Your task to perform on an android device: Open the web browser Image 0: 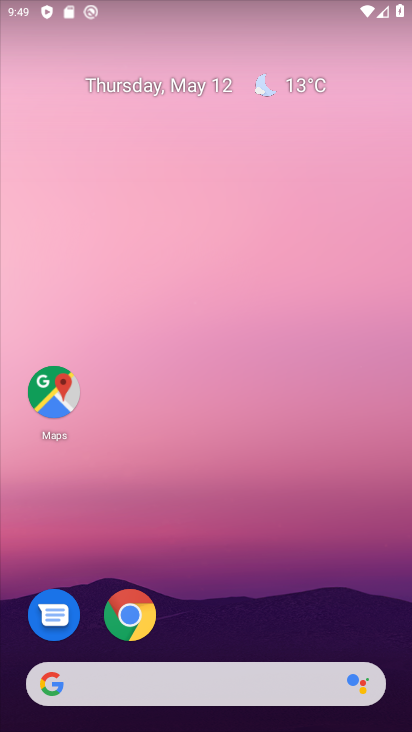
Step 0: drag from (361, 572) to (339, 5)
Your task to perform on an android device: Open the web browser Image 1: 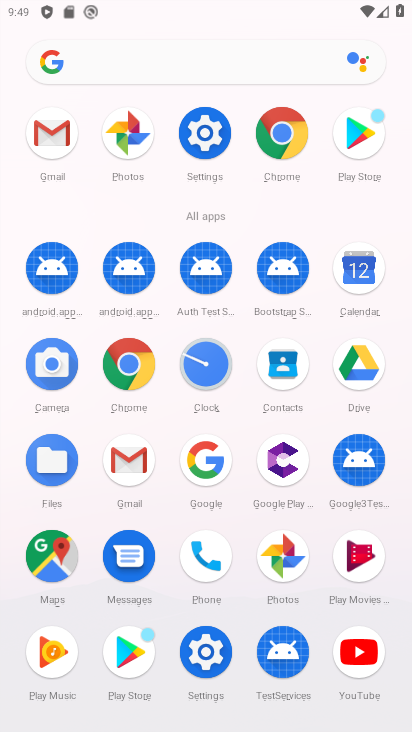
Step 1: click (288, 129)
Your task to perform on an android device: Open the web browser Image 2: 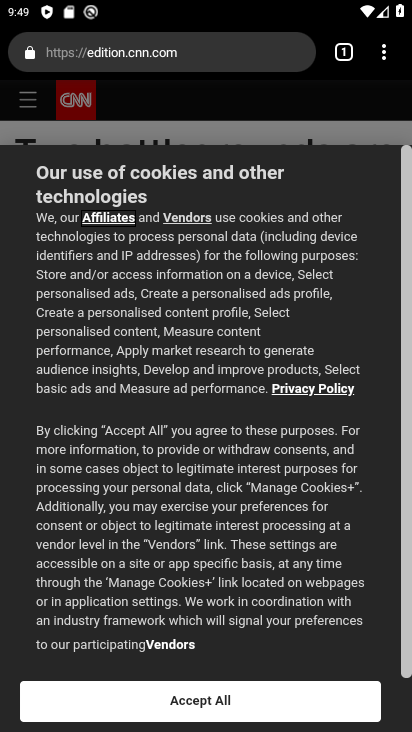
Step 2: task complete